Your task to perform on an android device: toggle translation in the chrome app Image 0: 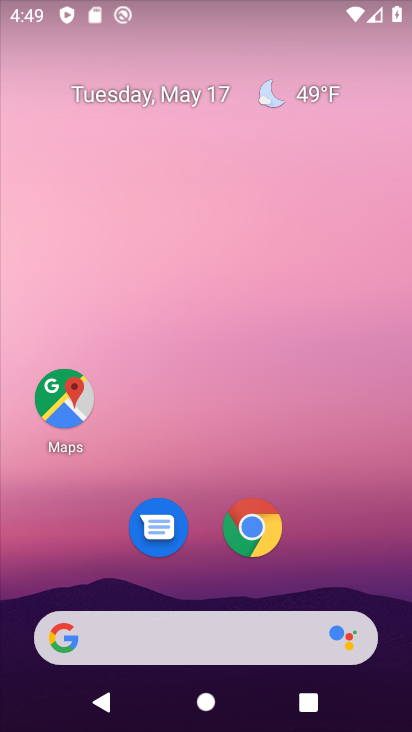
Step 0: drag from (305, 498) to (216, 24)
Your task to perform on an android device: toggle translation in the chrome app Image 1: 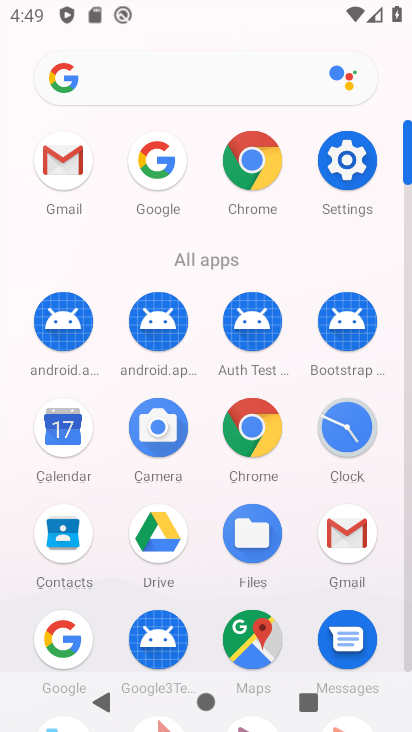
Step 1: drag from (13, 493) to (40, 229)
Your task to perform on an android device: toggle translation in the chrome app Image 2: 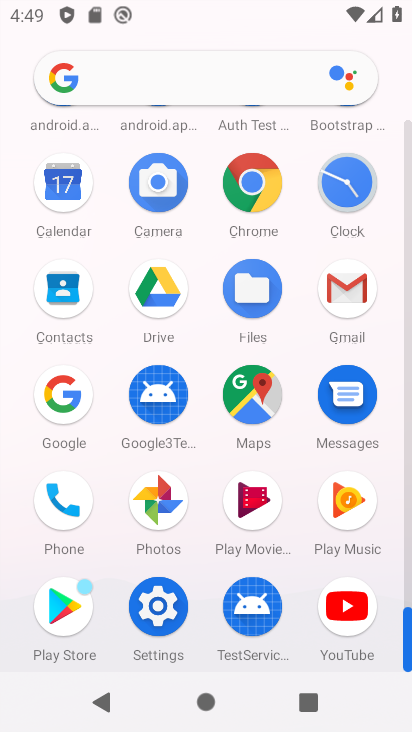
Step 2: click (249, 179)
Your task to perform on an android device: toggle translation in the chrome app Image 3: 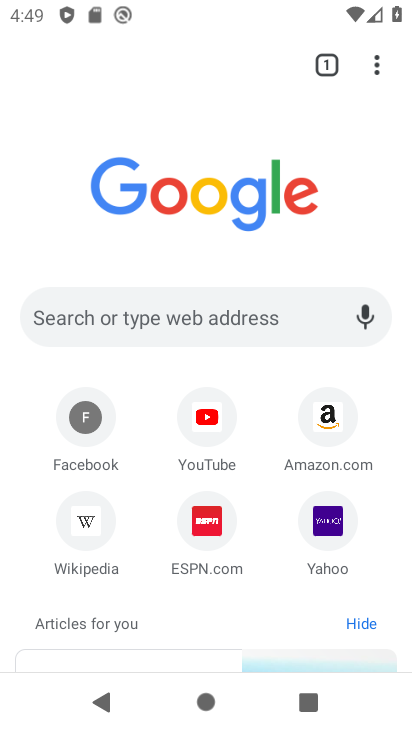
Step 3: drag from (375, 69) to (190, 536)
Your task to perform on an android device: toggle translation in the chrome app Image 4: 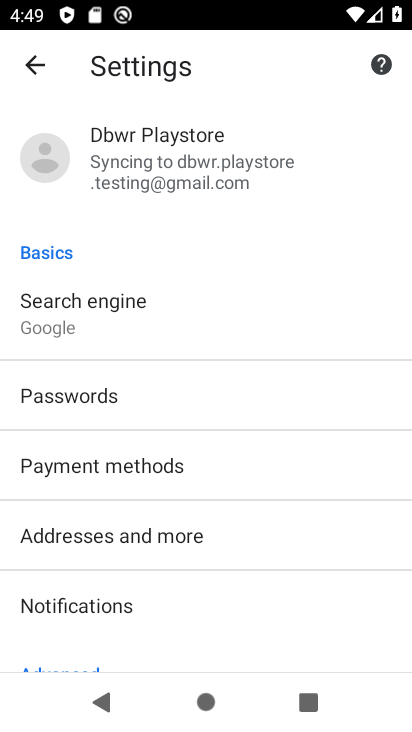
Step 4: drag from (249, 573) to (247, 195)
Your task to perform on an android device: toggle translation in the chrome app Image 5: 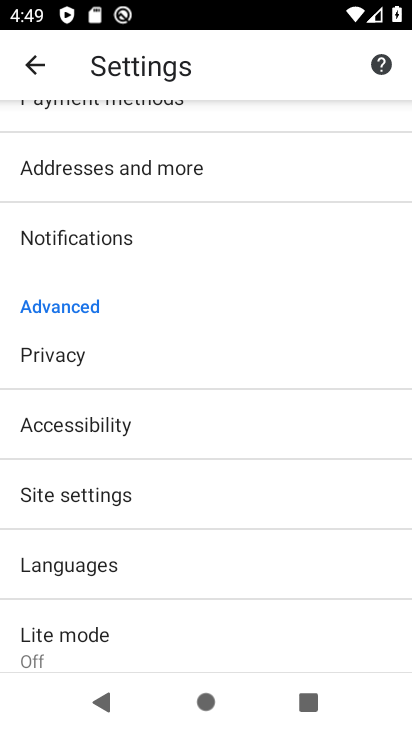
Step 5: click (130, 563)
Your task to perform on an android device: toggle translation in the chrome app Image 6: 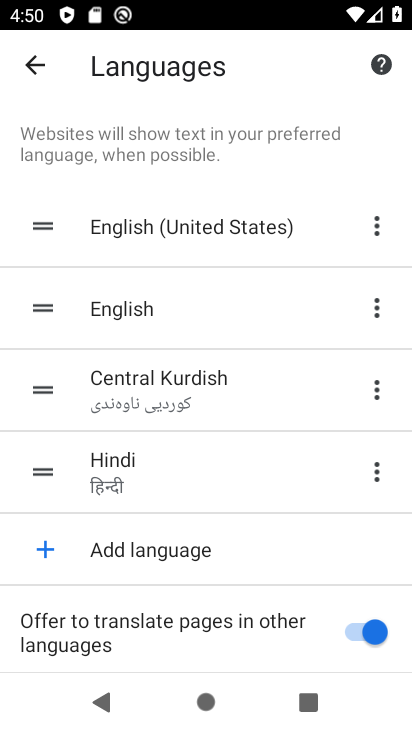
Step 6: click (353, 623)
Your task to perform on an android device: toggle translation in the chrome app Image 7: 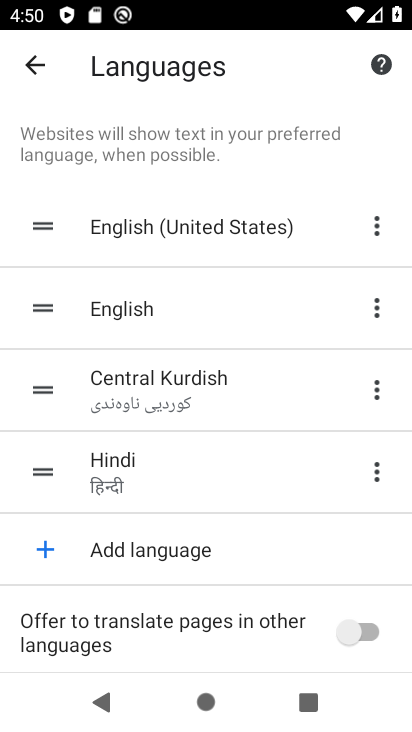
Step 7: task complete